Your task to perform on an android device: move a message to another label in the gmail app Image 0: 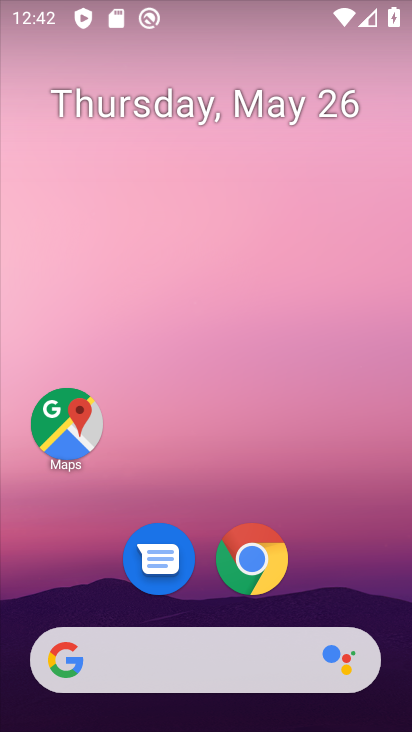
Step 0: press home button
Your task to perform on an android device: move a message to another label in the gmail app Image 1: 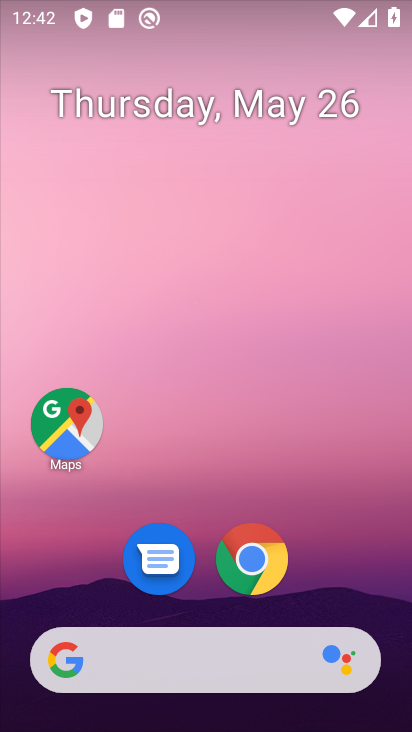
Step 1: drag from (166, 658) to (330, 135)
Your task to perform on an android device: move a message to another label in the gmail app Image 2: 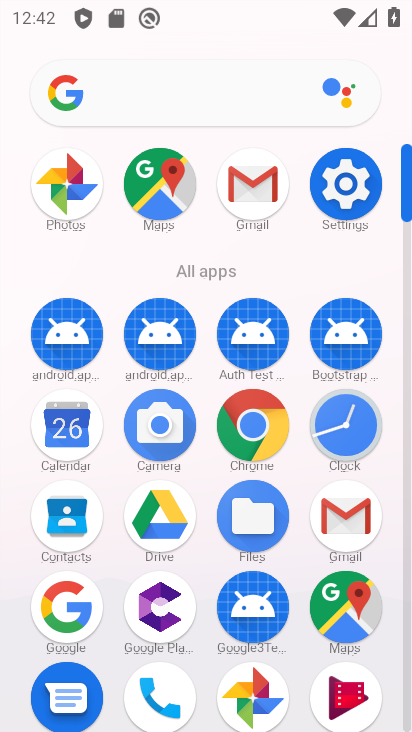
Step 2: click (252, 193)
Your task to perform on an android device: move a message to another label in the gmail app Image 3: 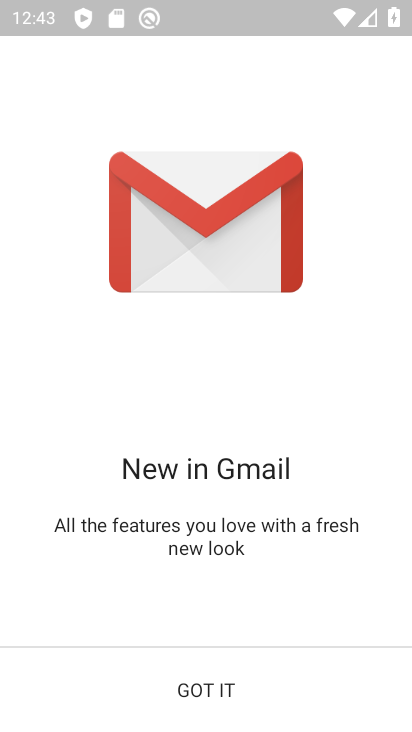
Step 3: click (218, 675)
Your task to perform on an android device: move a message to another label in the gmail app Image 4: 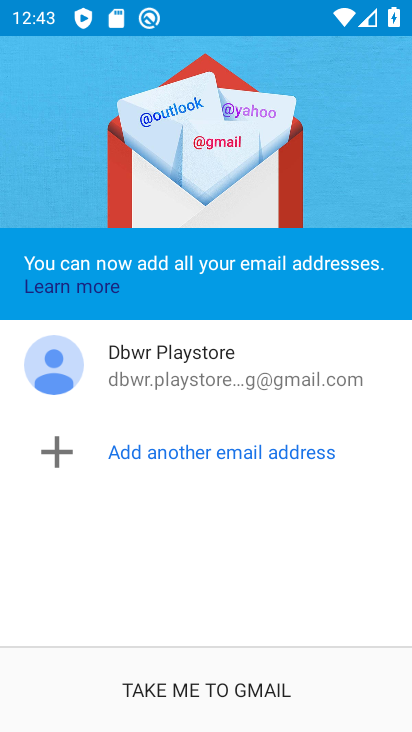
Step 4: click (218, 676)
Your task to perform on an android device: move a message to another label in the gmail app Image 5: 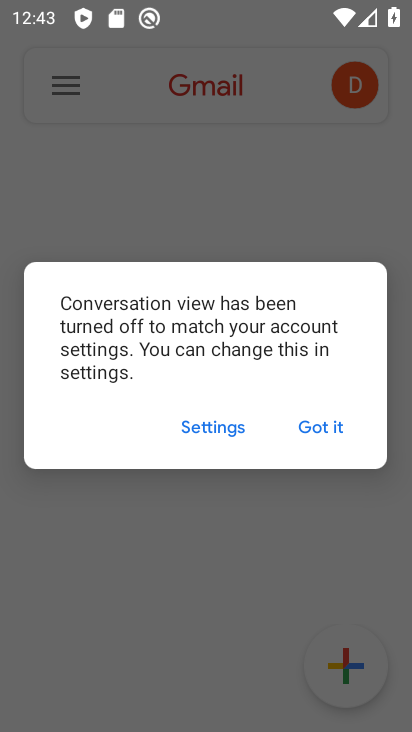
Step 5: click (323, 424)
Your task to perform on an android device: move a message to another label in the gmail app Image 6: 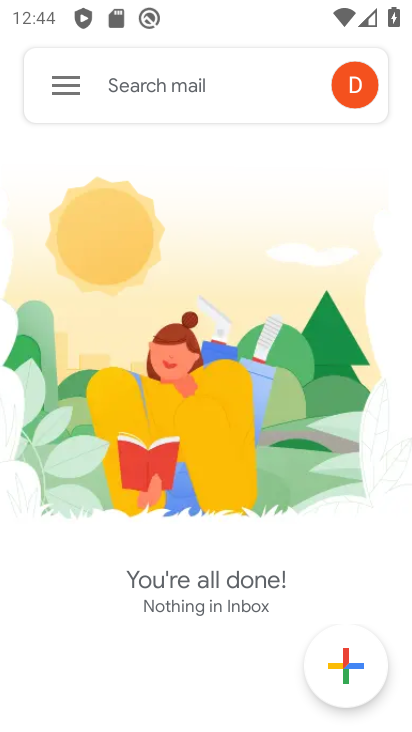
Step 6: task complete